Your task to perform on an android device: Open the phone app and click the voicemail tab. Image 0: 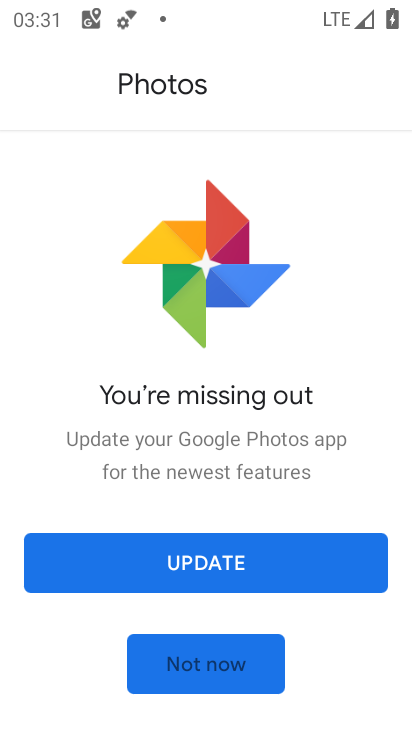
Step 0: press home button
Your task to perform on an android device: Open the phone app and click the voicemail tab. Image 1: 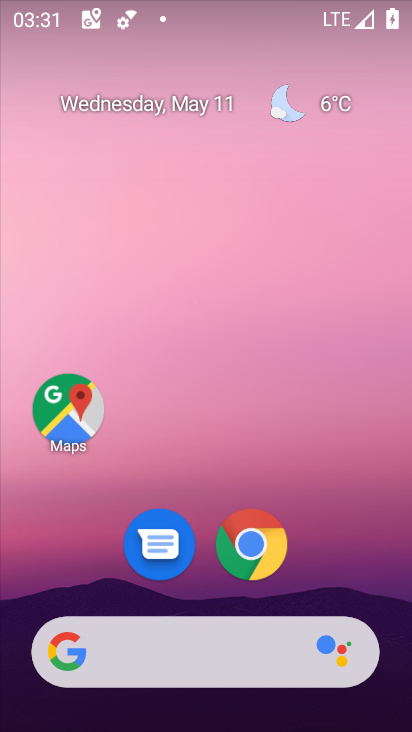
Step 1: drag from (324, 582) to (312, 73)
Your task to perform on an android device: Open the phone app and click the voicemail tab. Image 2: 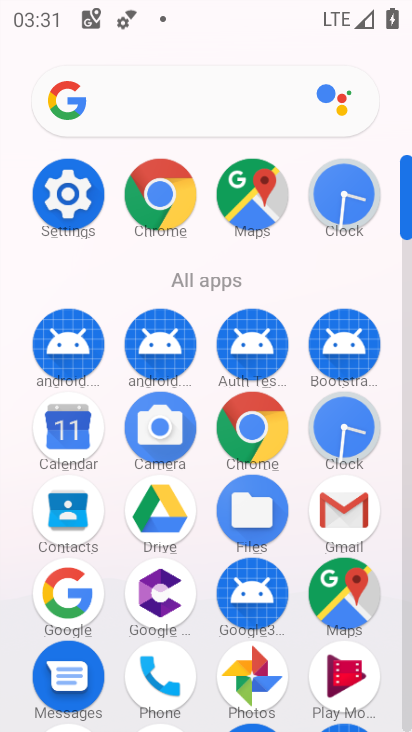
Step 2: click (163, 681)
Your task to perform on an android device: Open the phone app and click the voicemail tab. Image 3: 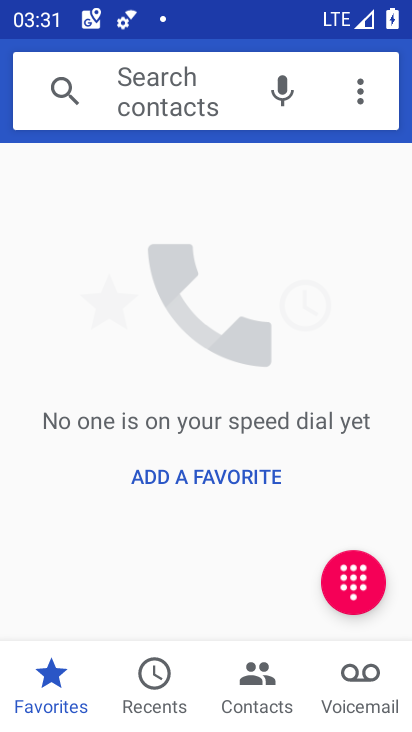
Step 3: click (344, 679)
Your task to perform on an android device: Open the phone app and click the voicemail tab. Image 4: 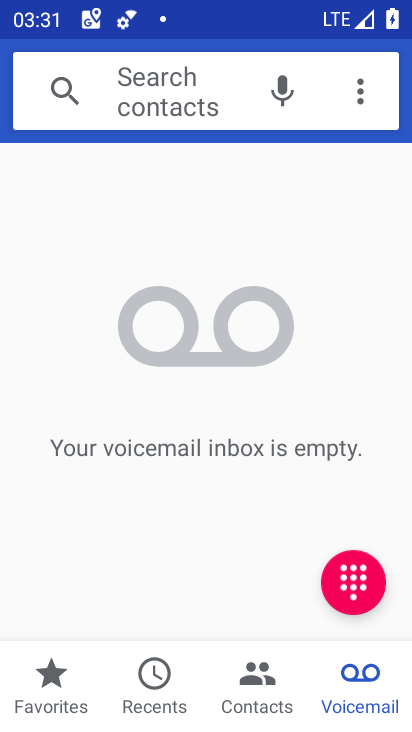
Step 4: task complete